Your task to perform on an android device: toggle notification dots Image 0: 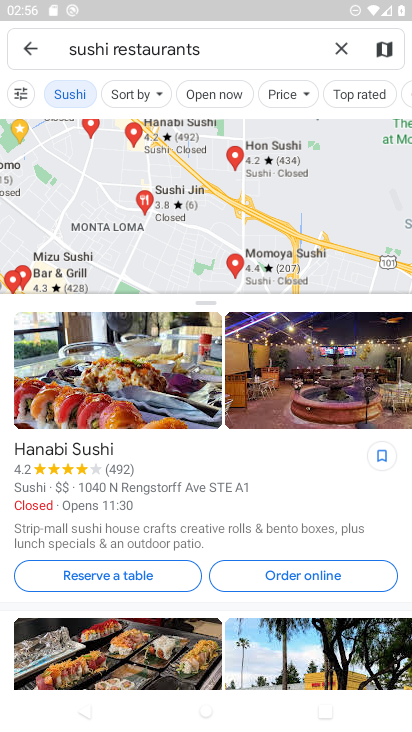
Step 0: press home button
Your task to perform on an android device: toggle notification dots Image 1: 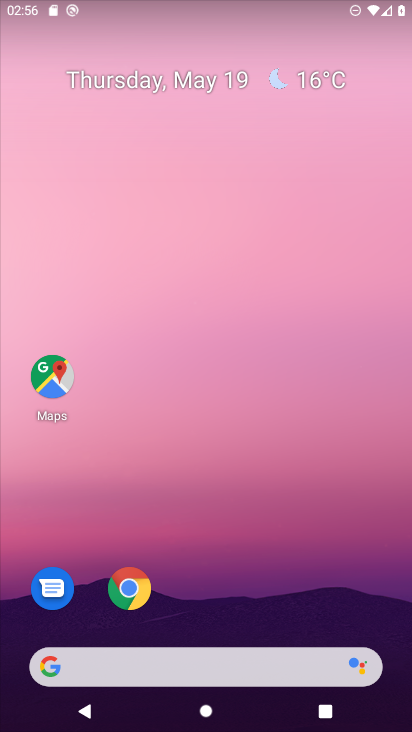
Step 1: drag from (215, 600) to (252, 4)
Your task to perform on an android device: toggle notification dots Image 2: 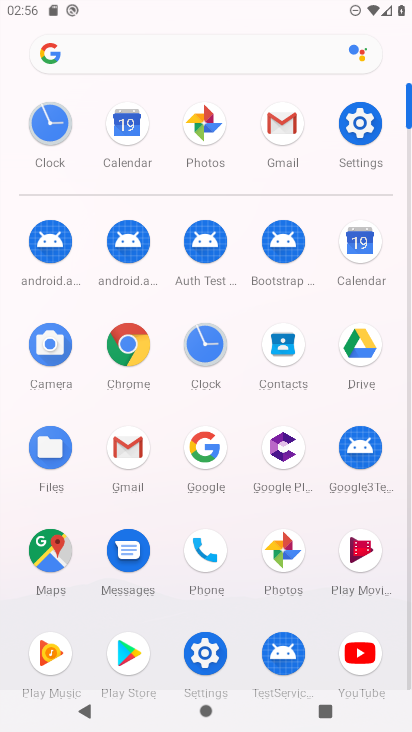
Step 2: click (367, 112)
Your task to perform on an android device: toggle notification dots Image 3: 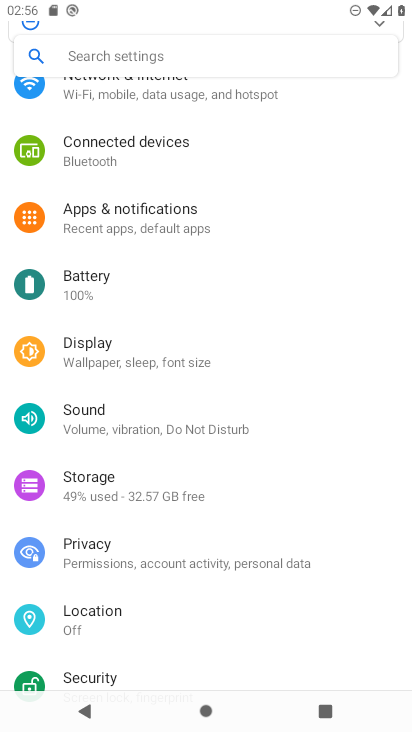
Step 3: click (121, 236)
Your task to perform on an android device: toggle notification dots Image 4: 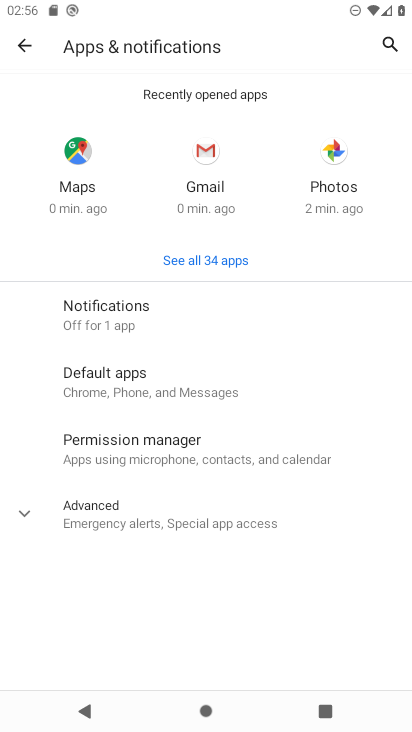
Step 4: click (108, 319)
Your task to perform on an android device: toggle notification dots Image 5: 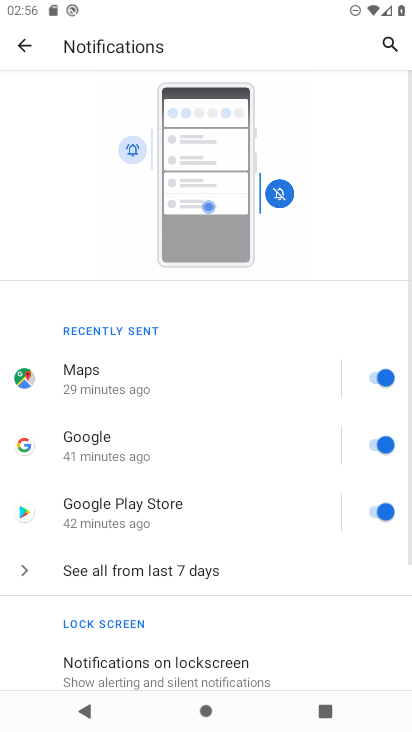
Step 5: drag from (168, 582) to (180, 156)
Your task to perform on an android device: toggle notification dots Image 6: 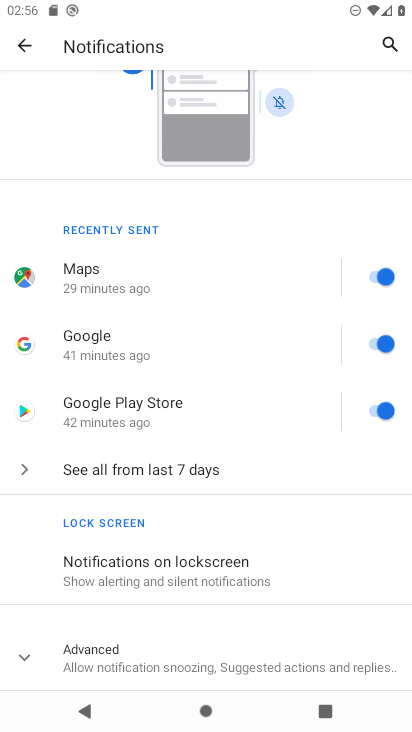
Step 6: click (22, 664)
Your task to perform on an android device: toggle notification dots Image 7: 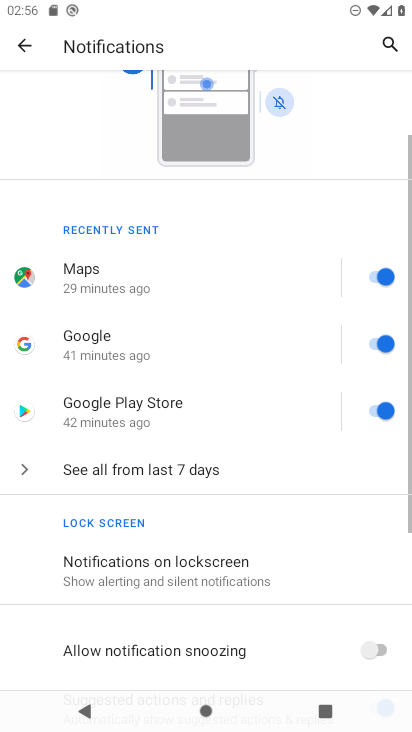
Step 7: drag from (139, 672) to (164, 347)
Your task to perform on an android device: toggle notification dots Image 8: 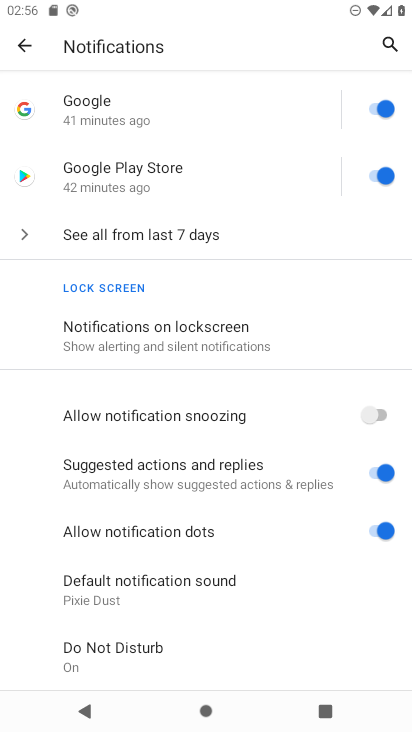
Step 8: click (383, 522)
Your task to perform on an android device: toggle notification dots Image 9: 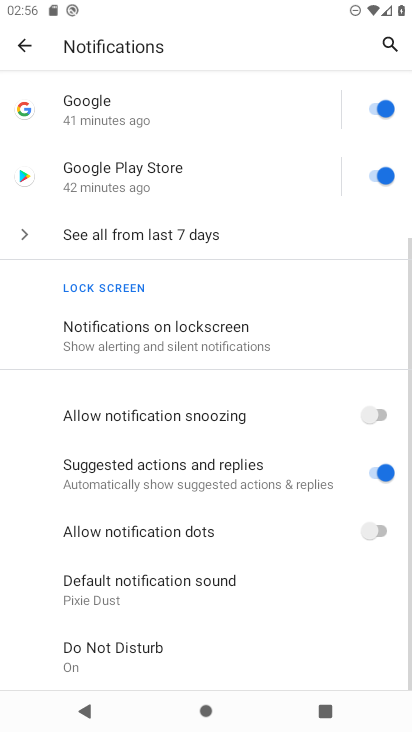
Step 9: task complete